Your task to perform on an android device: turn on the 12-hour format for clock Image 0: 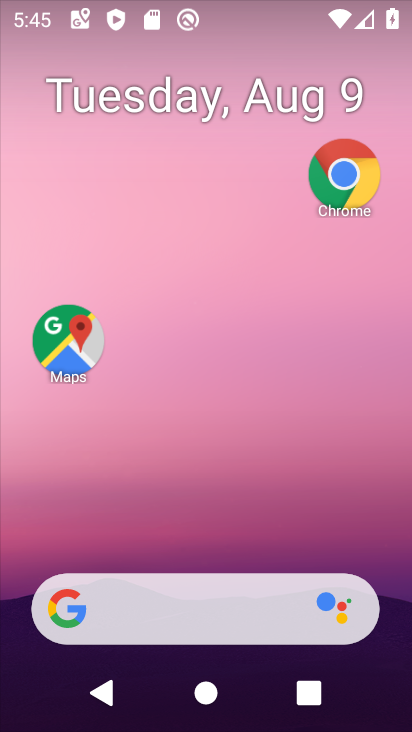
Step 0: drag from (238, 477) to (231, 161)
Your task to perform on an android device: turn on the 12-hour format for clock Image 1: 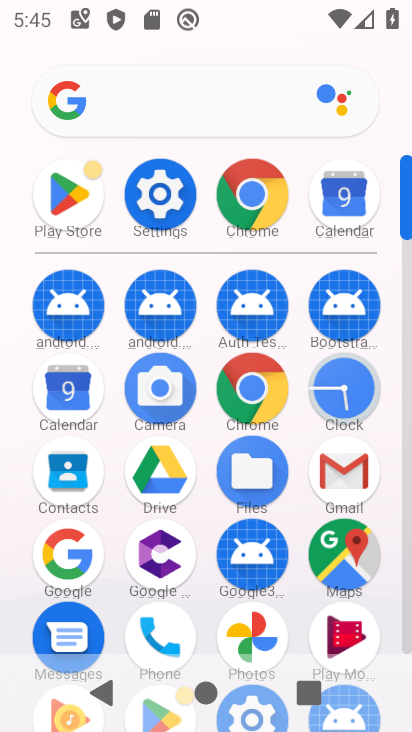
Step 1: drag from (192, 589) to (233, 357)
Your task to perform on an android device: turn on the 12-hour format for clock Image 2: 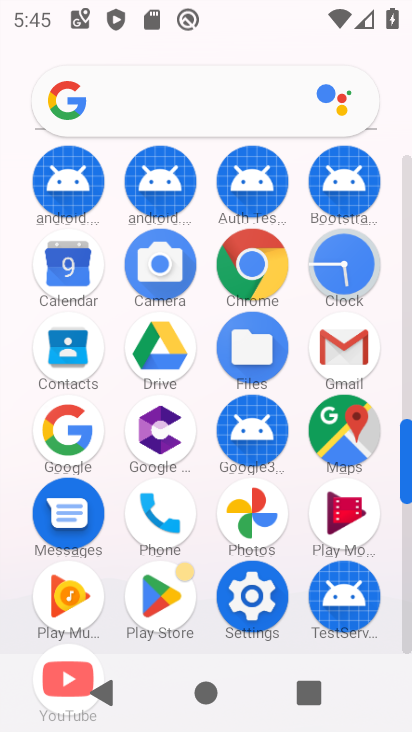
Step 2: drag from (205, 485) to (206, 296)
Your task to perform on an android device: turn on the 12-hour format for clock Image 3: 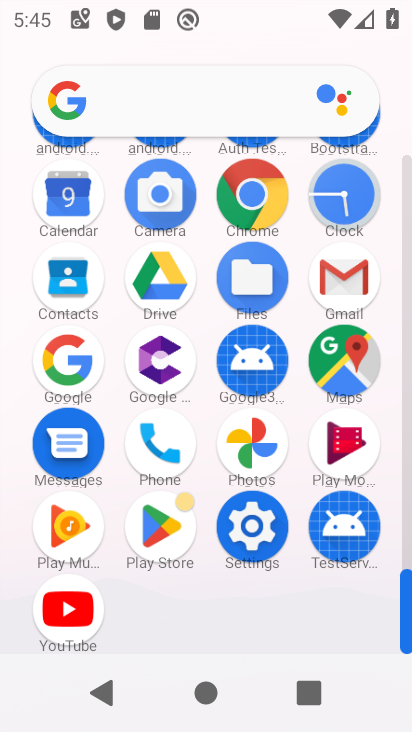
Step 3: drag from (207, 465) to (207, 176)
Your task to perform on an android device: turn on the 12-hour format for clock Image 4: 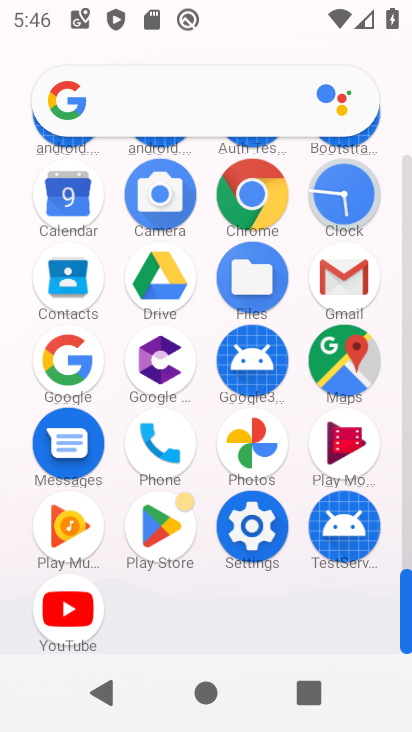
Step 4: click (336, 208)
Your task to perform on an android device: turn on the 12-hour format for clock Image 5: 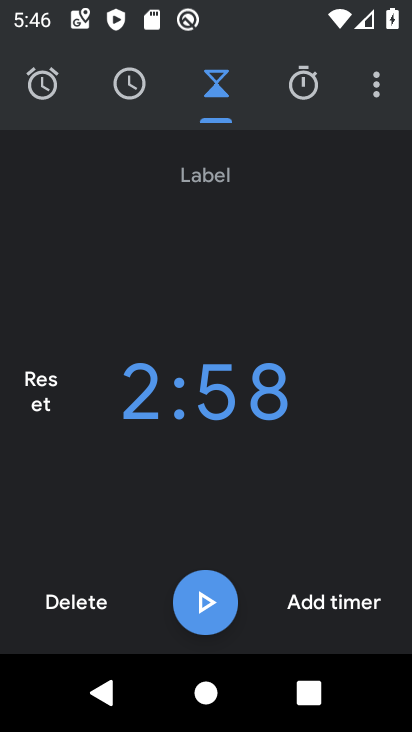
Step 5: drag from (375, 84) to (269, 141)
Your task to perform on an android device: turn on the 12-hour format for clock Image 6: 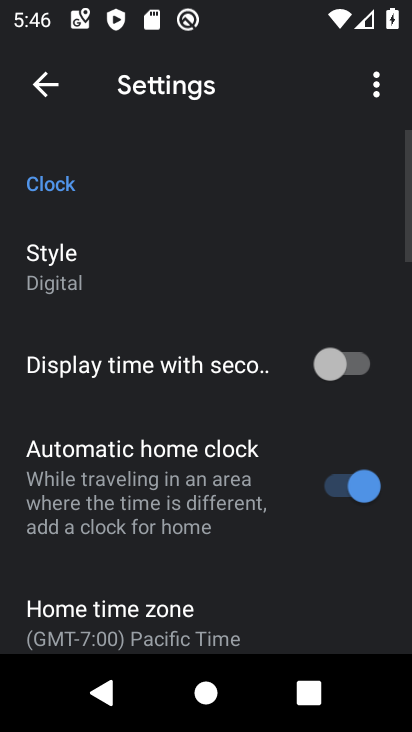
Step 6: drag from (179, 561) to (306, 132)
Your task to perform on an android device: turn on the 12-hour format for clock Image 7: 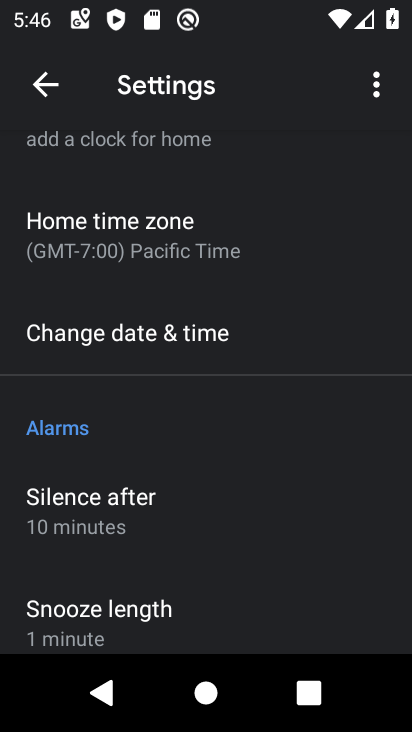
Step 7: drag from (153, 498) to (183, 199)
Your task to perform on an android device: turn on the 12-hour format for clock Image 8: 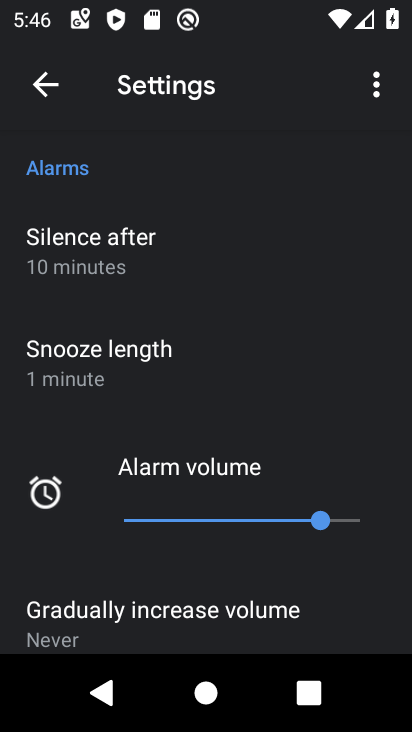
Step 8: drag from (203, 548) to (215, 275)
Your task to perform on an android device: turn on the 12-hour format for clock Image 9: 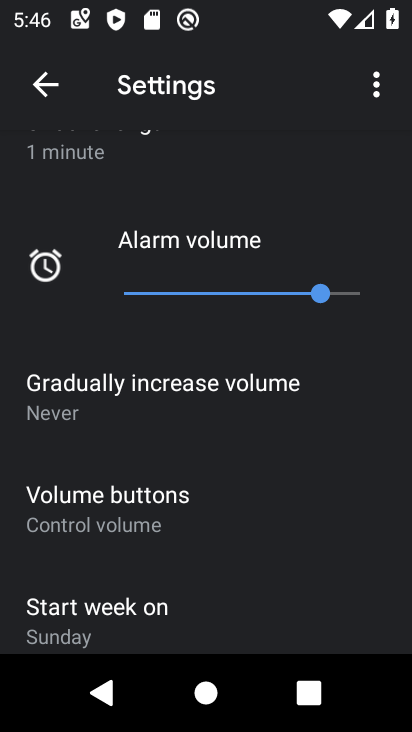
Step 9: drag from (166, 563) to (197, 168)
Your task to perform on an android device: turn on the 12-hour format for clock Image 10: 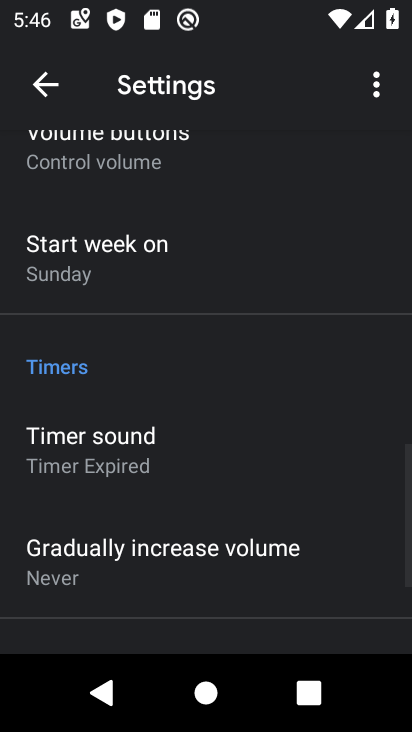
Step 10: drag from (207, 221) to (241, 626)
Your task to perform on an android device: turn on the 12-hour format for clock Image 11: 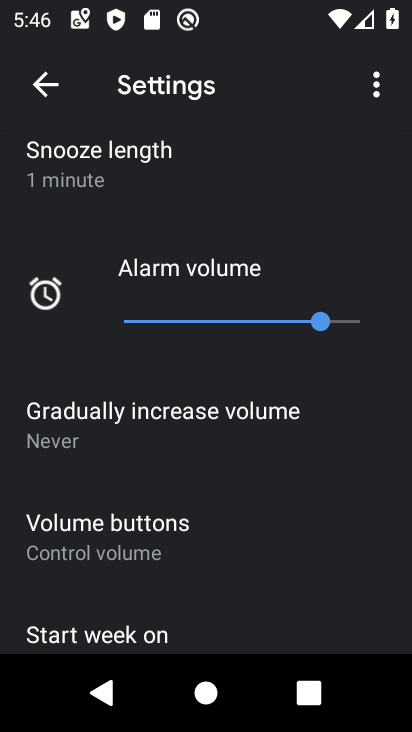
Step 11: drag from (131, 225) to (212, 616)
Your task to perform on an android device: turn on the 12-hour format for clock Image 12: 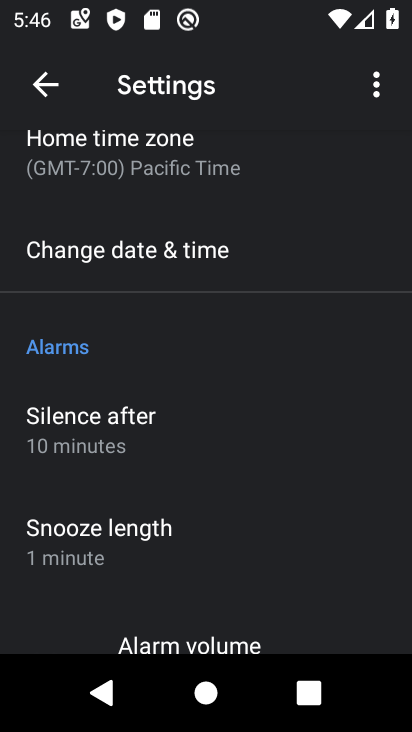
Step 12: drag from (148, 269) to (210, 544)
Your task to perform on an android device: turn on the 12-hour format for clock Image 13: 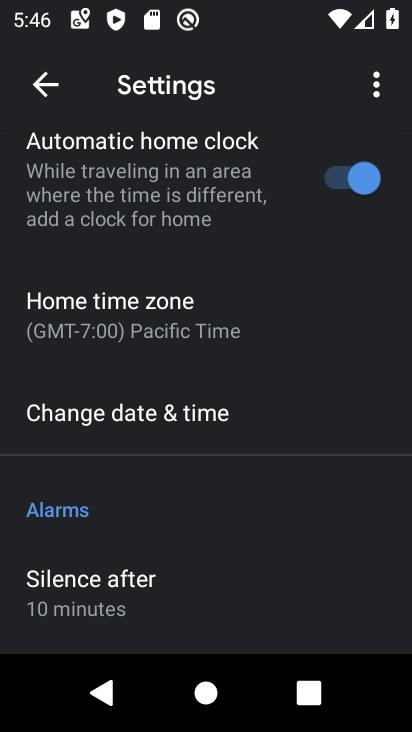
Step 13: click (144, 428)
Your task to perform on an android device: turn on the 12-hour format for clock Image 14: 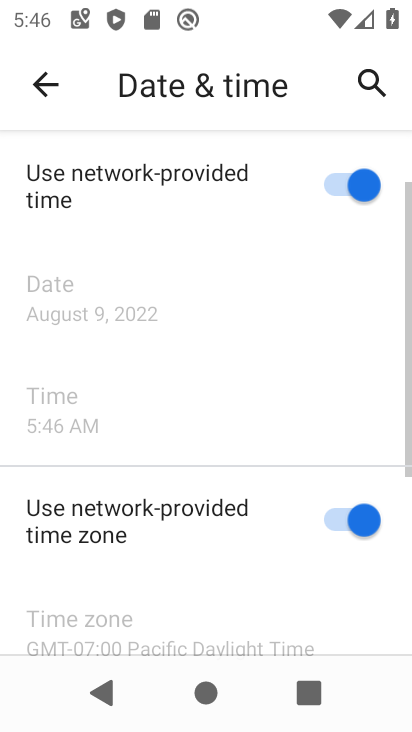
Step 14: task complete